Your task to perform on an android device: Open the phone app and click the voicemail tab. Image 0: 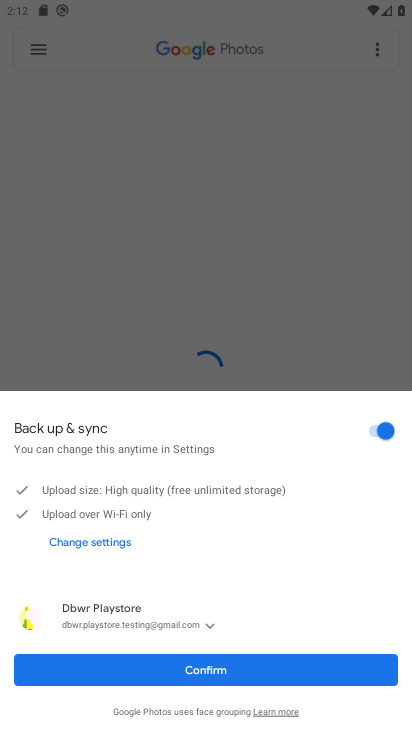
Step 0: press home button
Your task to perform on an android device: Open the phone app and click the voicemail tab. Image 1: 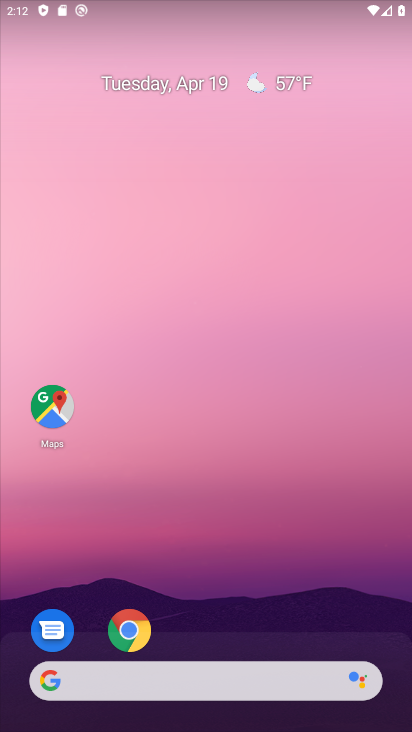
Step 1: drag from (359, 406) to (328, 270)
Your task to perform on an android device: Open the phone app and click the voicemail tab. Image 2: 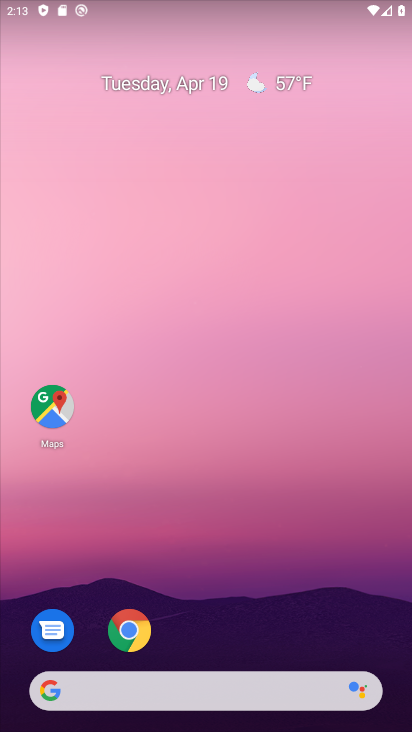
Step 2: drag from (224, 601) to (200, 117)
Your task to perform on an android device: Open the phone app and click the voicemail tab. Image 3: 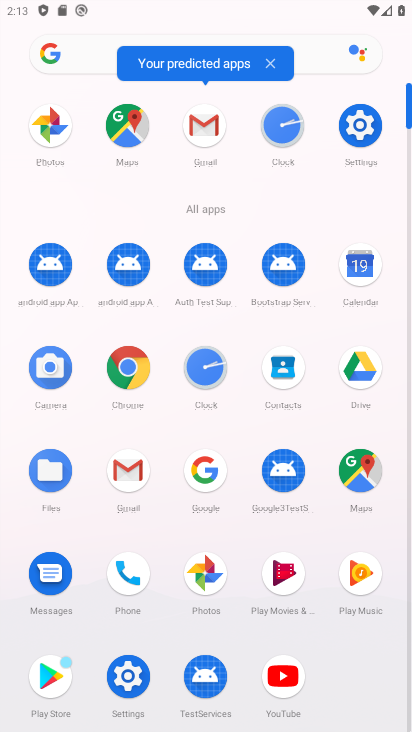
Step 3: click (125, 566)
Your task to perform on an android device: Open the phone app and click the voicemail tab. Image 4: 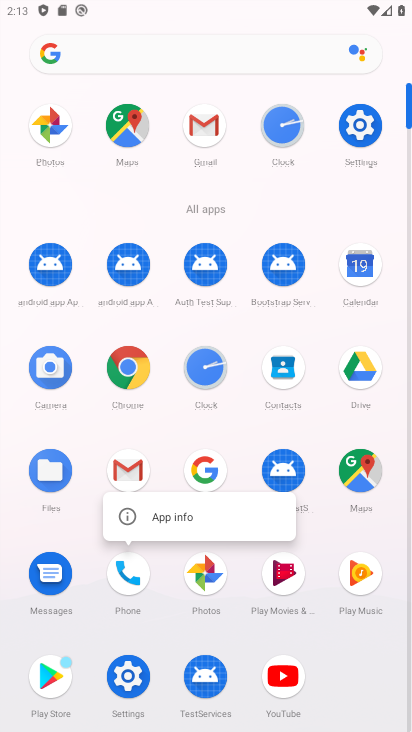
Step 4: click (130, 573)
Your task to perform on an android device: Open the phone app and click the voicemail tab. Image 5: 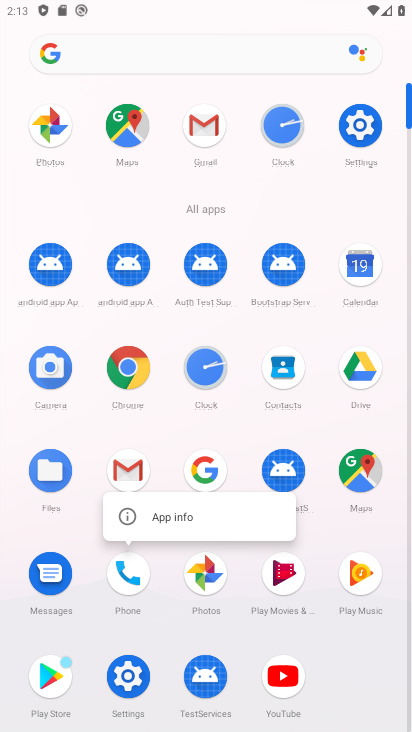
Step 5: click (122, 591)
Your task to perform on an android device: Open the phone app and click the voicemail tab. Image 6: 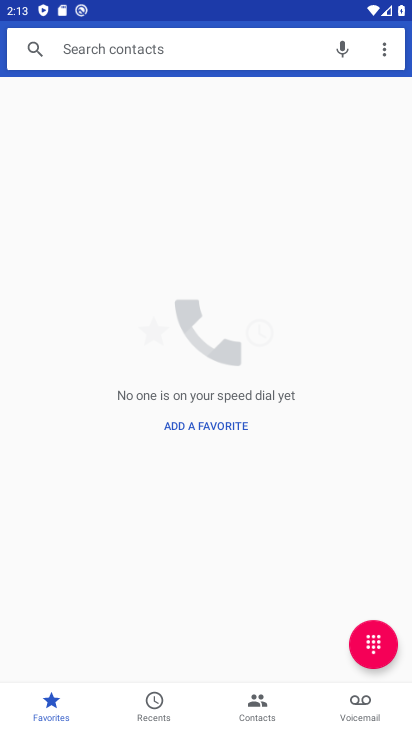
Step 6: click (357, 703)
Your task to perform on an android device: Open the phone app and click the voicemail tab. Image 7: 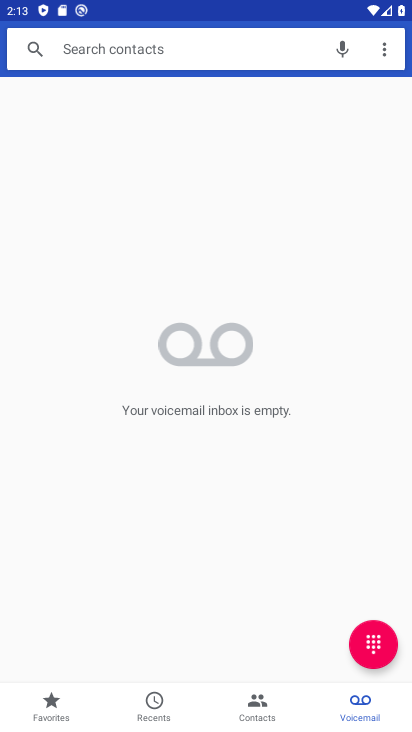
Step 7: task complete